Your task to perform on an android device: open app "Microsoft Authenticator" Image 0: 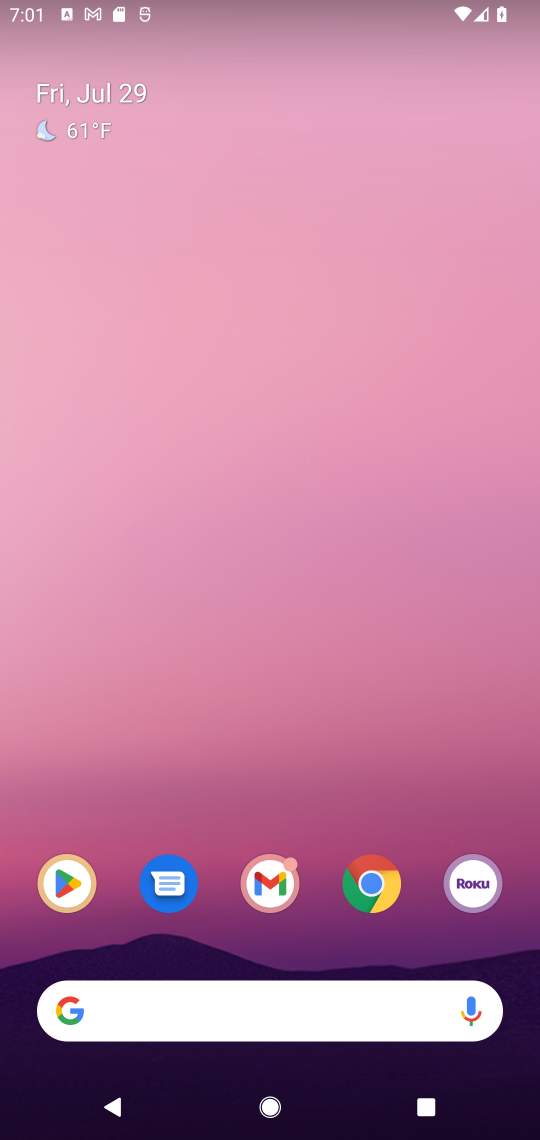
Step 0: click (76, 892)
Your task to perform on an android device: open app "Microsoft Authenticator" Image 1: 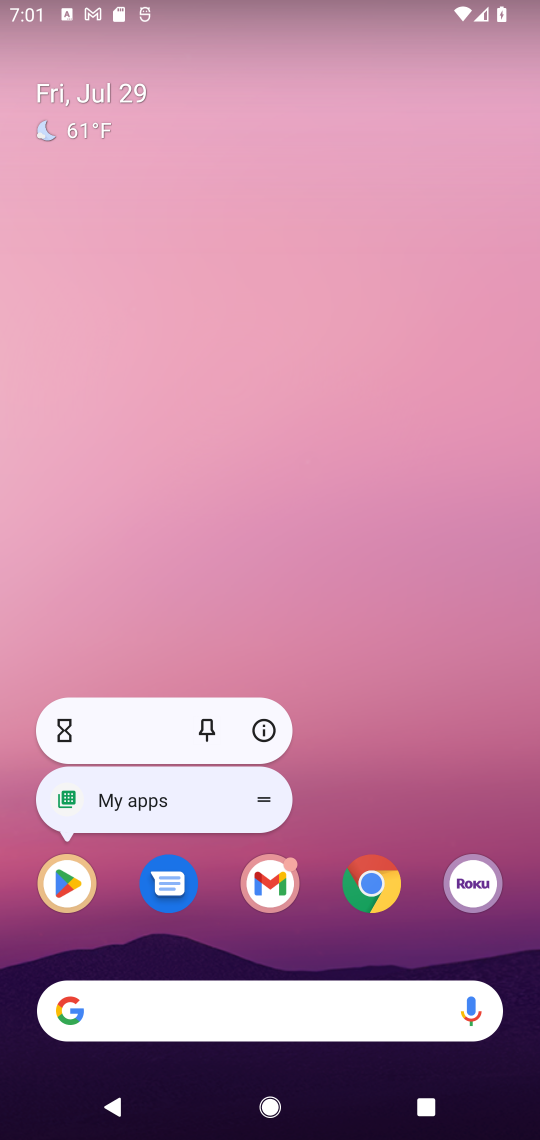
Step 1: click (56, 883)
Your task to perform on an android device: open app "Microsoft Authenticator" Image 2: 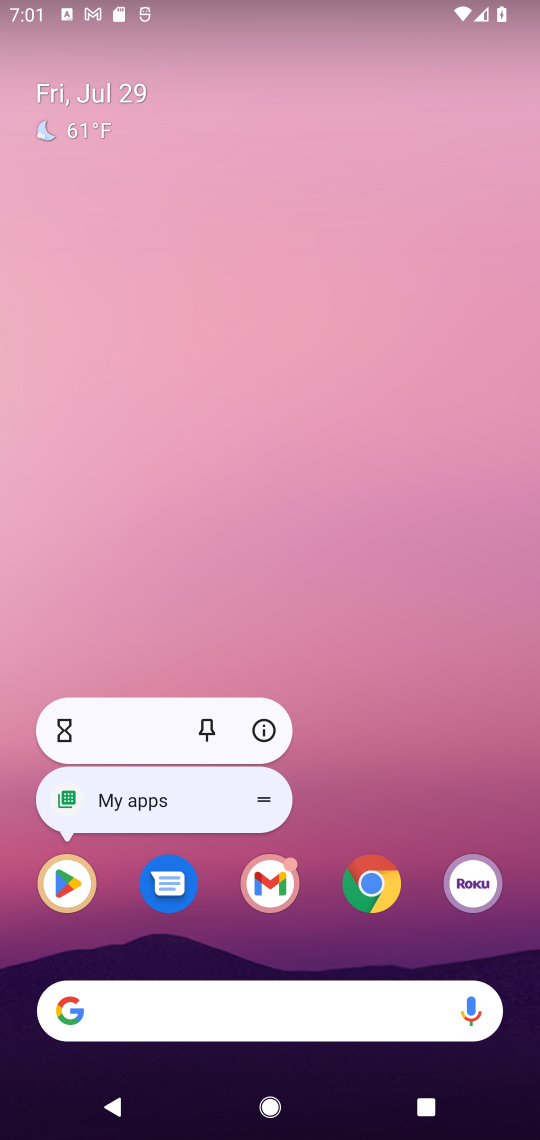
Step 2: click (63, 889)
Your task to perform on an android device: open app "Microsoft Authenticator" Image 3: 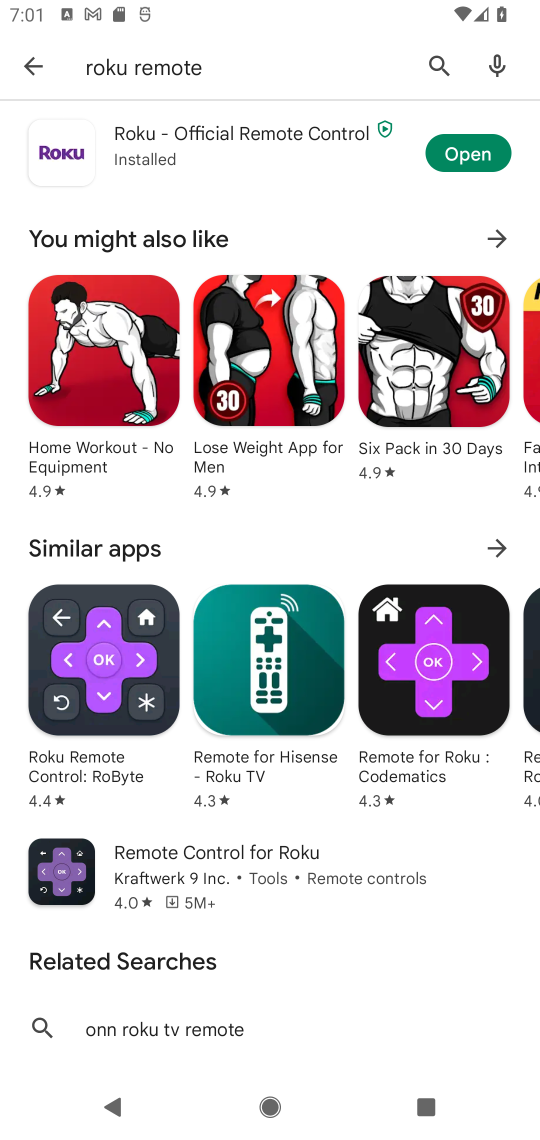
Step 3: click (437, 67)
Your task to perform on an android device: open app "Microsoft Authenticator" Image 4: 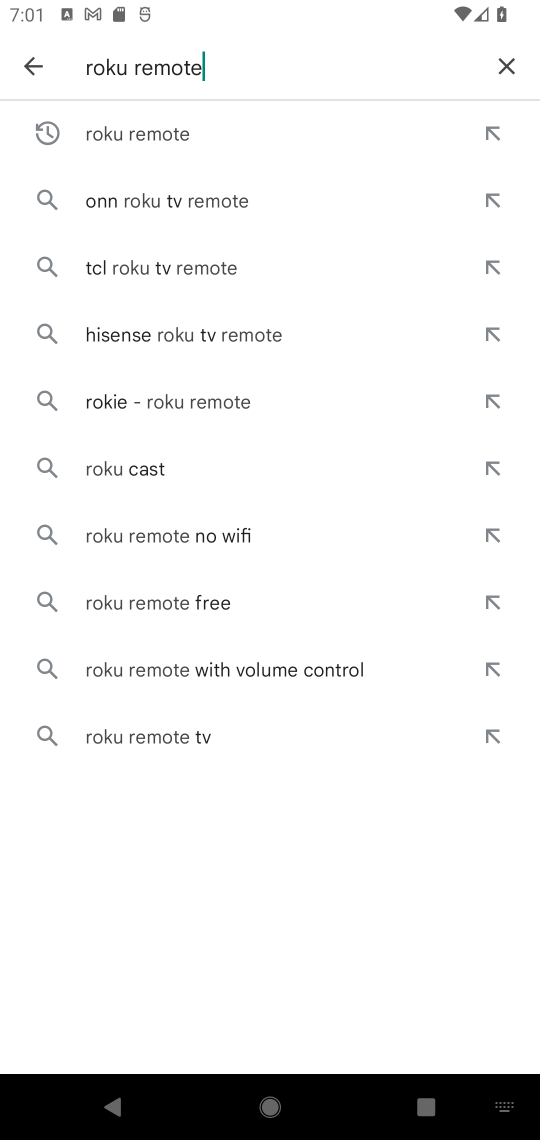
Step 4: click (512, 50)
Your task to perform on an android device: open app "Microsoft Authenticator" Image 5: 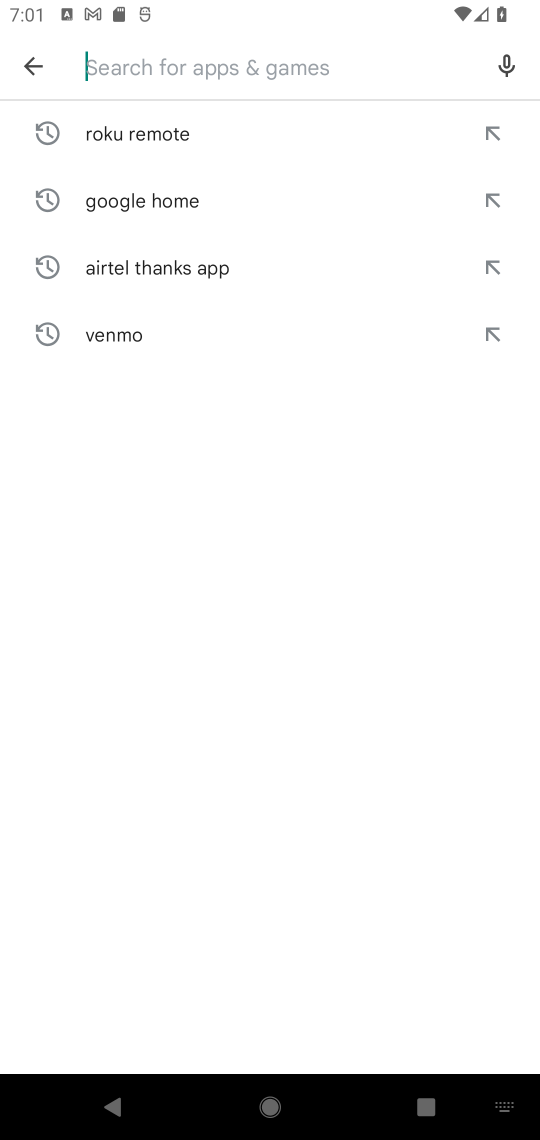
Step 5: click (185, 76)
Your task to perform on an android device: open app "Microsoft Authenticator" Image 6: 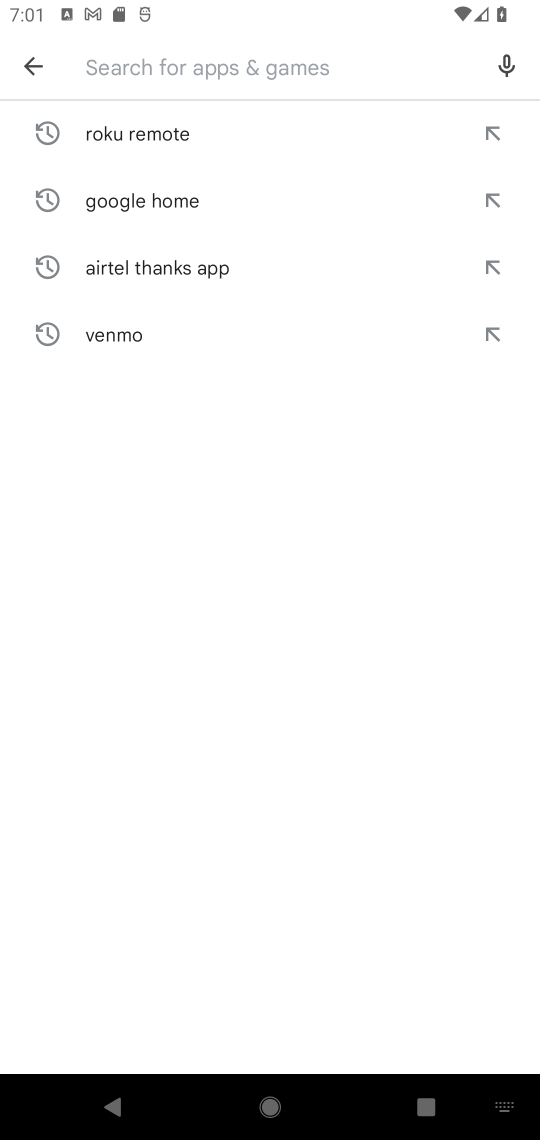
Step 6: click (163, 71)
Your task to perform on an android device: open app "Microsoft Authenticator" Image 7: 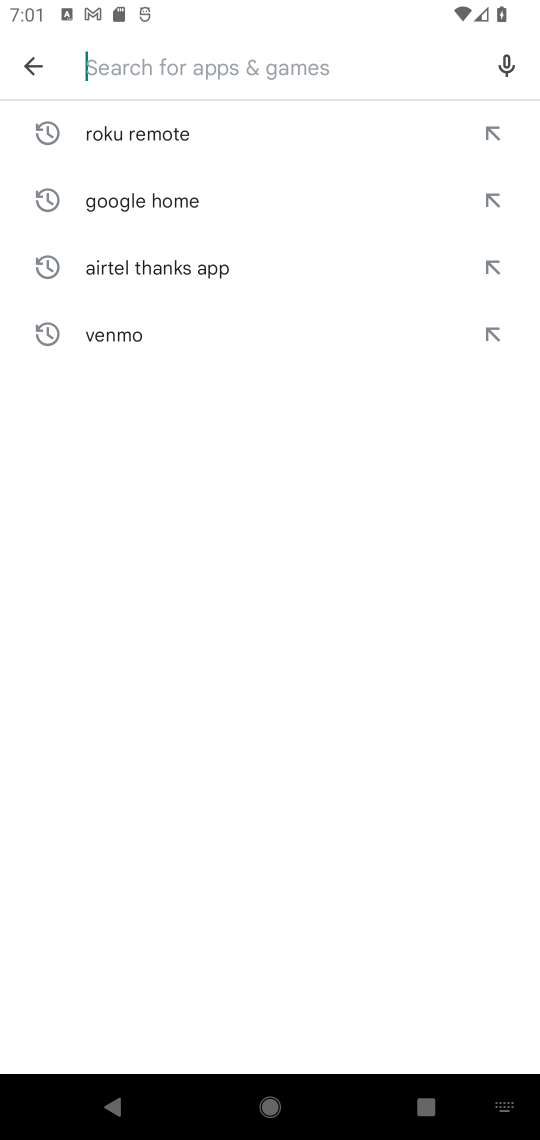
Step 7: type "Microsoft Authenticator"
Your task to perform on an android device: open app "Microsoft Authenticator" Image 8: 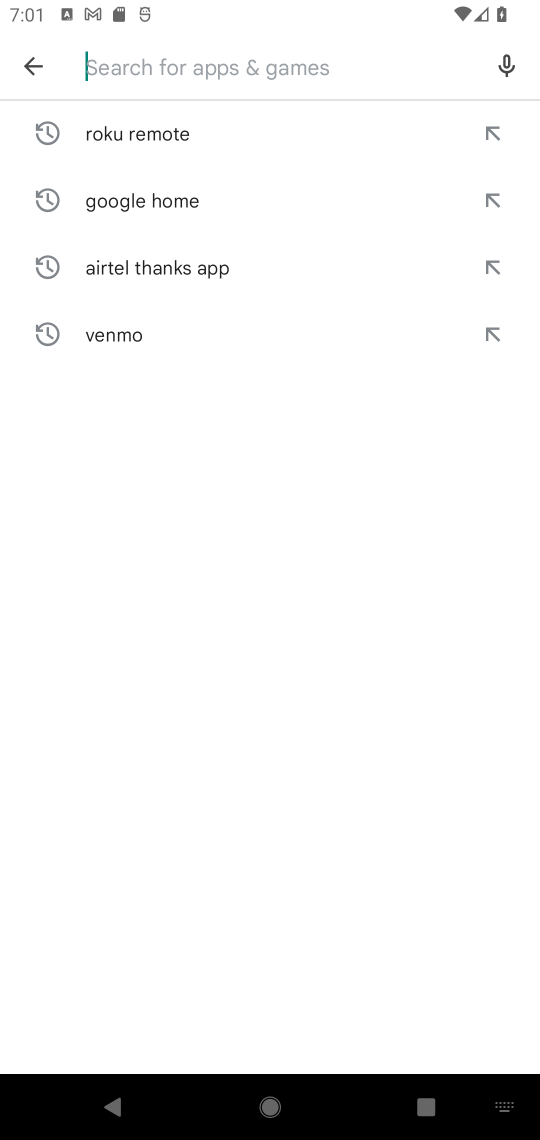
Step 8: click (329, 606)
Your task to perform on an android device: open app "Microsoft Authenticator" Image 9: 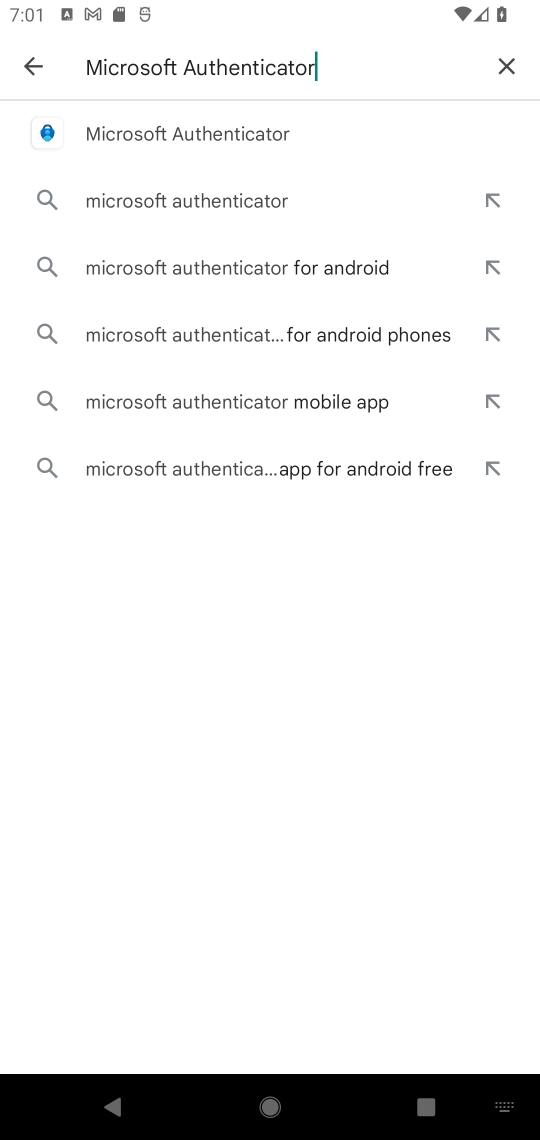
Step 9: click (210, 115)
Your task to perform on an android device: open app "Microsoft Authenticator" Image 10: 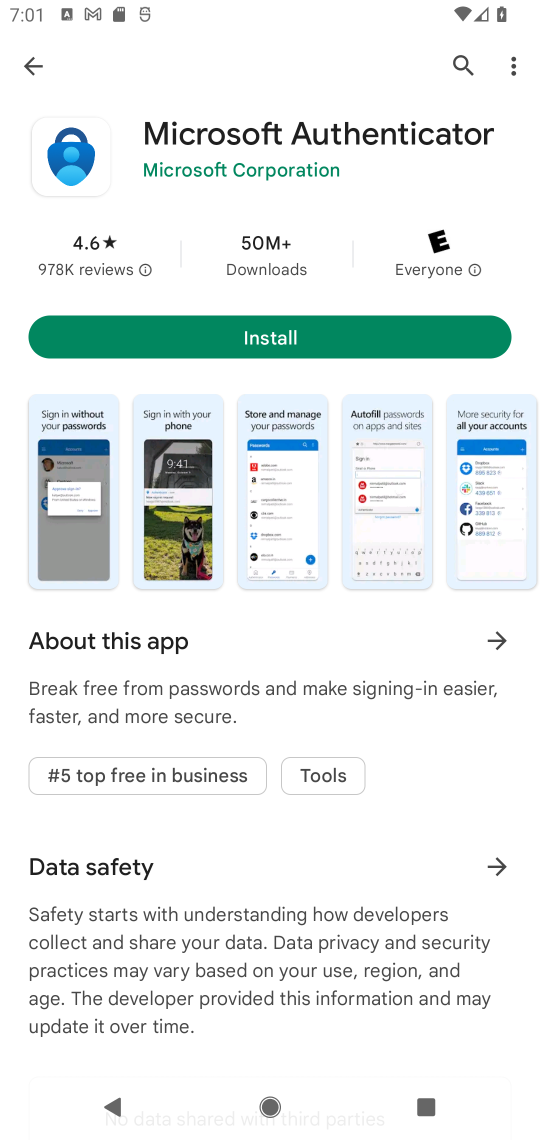
Step 10: task complete